Your task to perform on an android device: Search for the best rated coffee table on Target. Image 0: 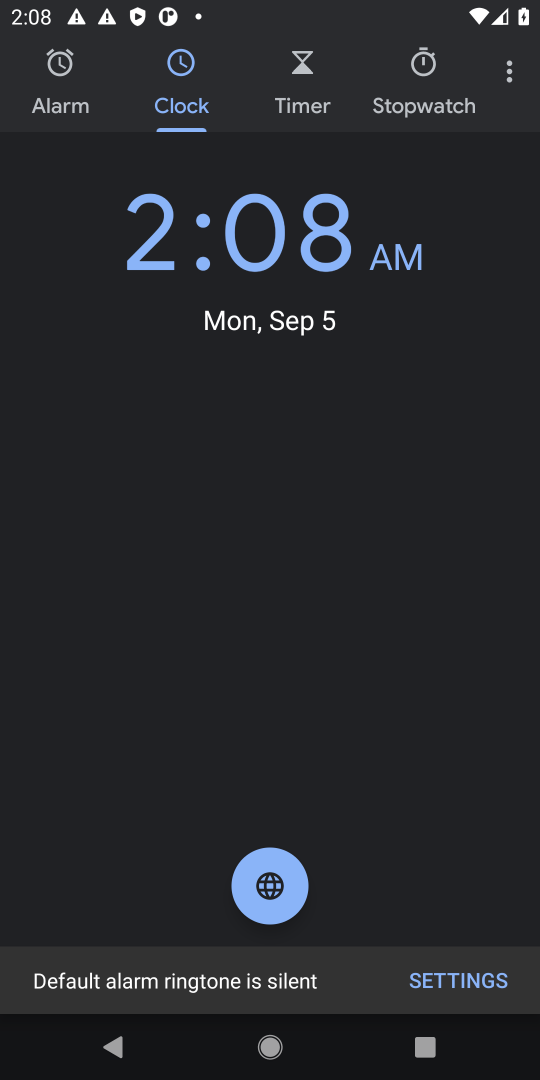
Step 0: press home button
Your task to perform on an android device: Search for the best rated coffee table on Target. Image 1: 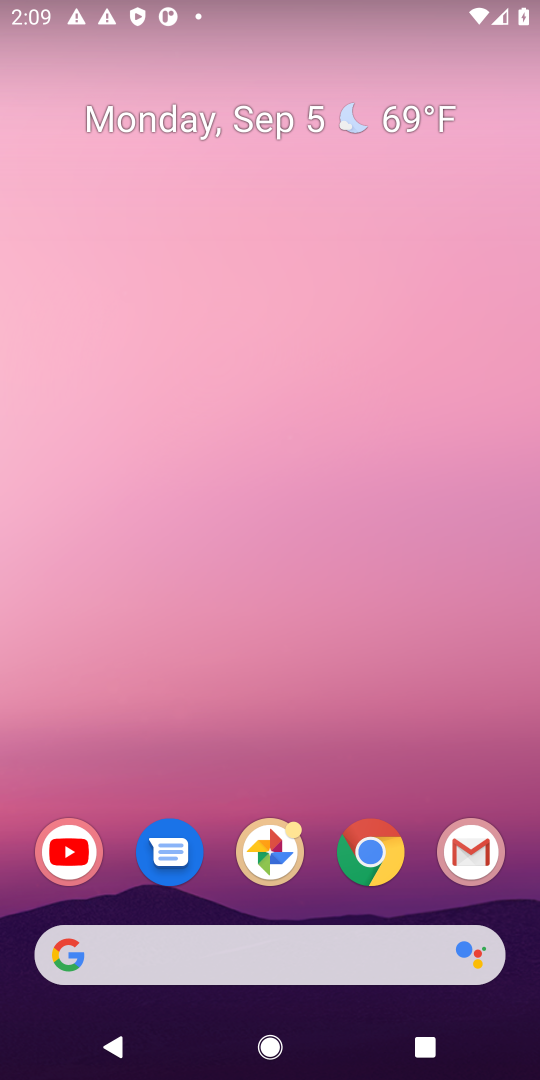
Step 1: click (373, 852)
Your task to perform on an android device: Search for the best rated coffee table on Target. Image 2: 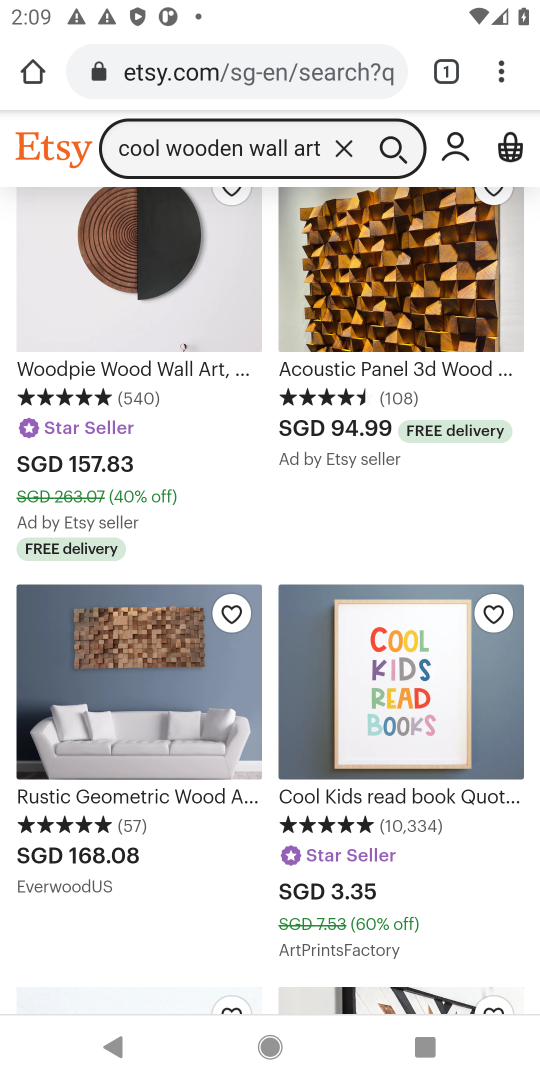
Step 2: click (257, 53)
Your task to perform on an android device: Search for the best rated coffee table on Target. Image 3: 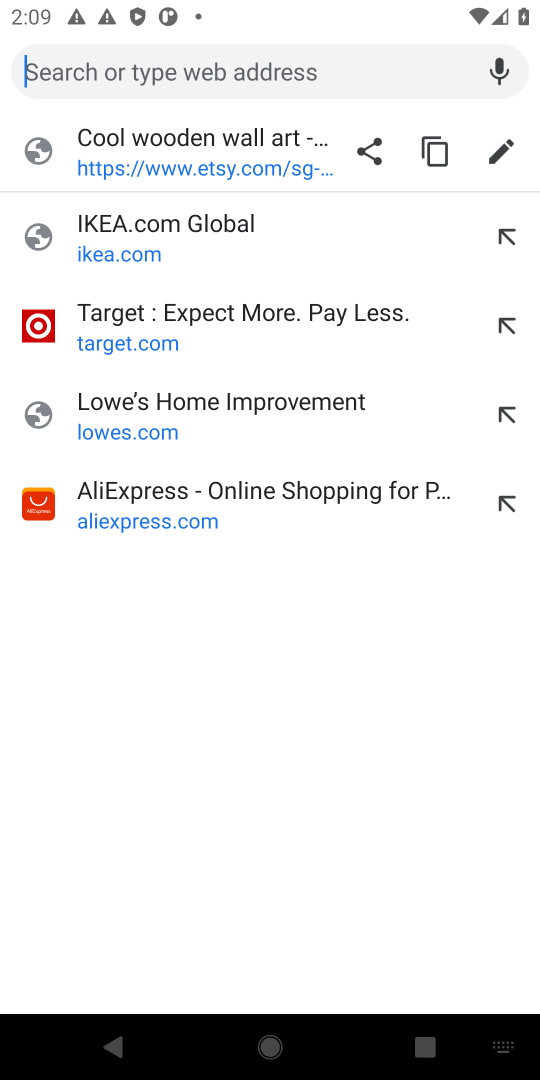
Step 3: click (108, 309)
Your task to perform on an android device: Search for the best rated coffee table on Target. Image 4: 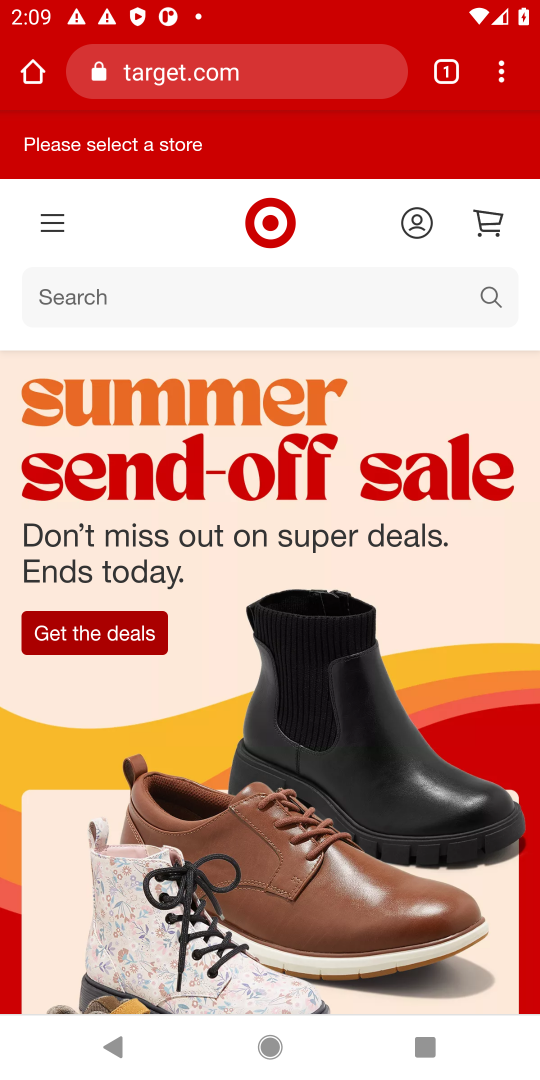
Step 4: click (101, 303)
Your task to perform on an android device: Search for the best rated coffee table on Target. Image 5: 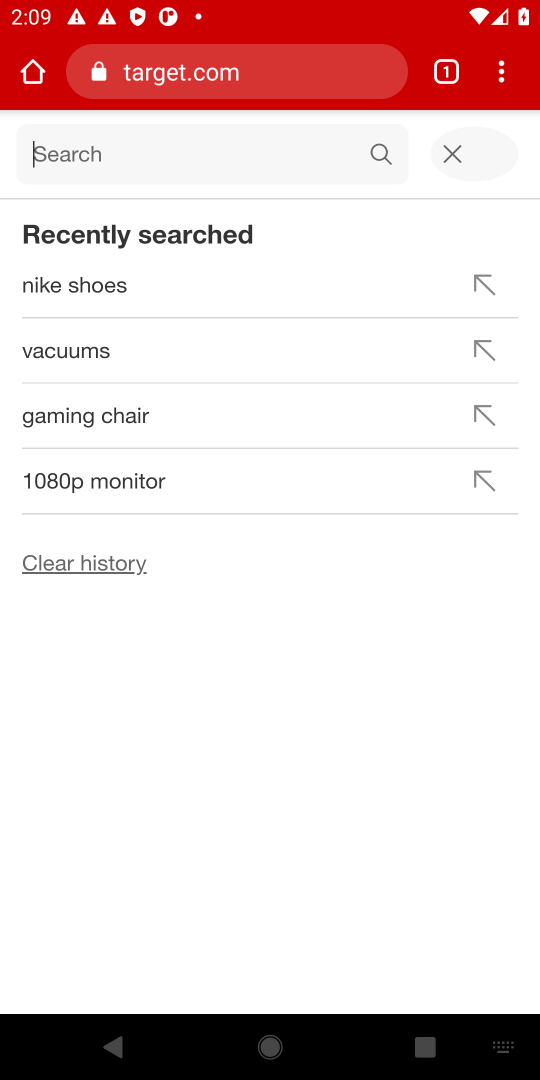
Step 5: type "coffee table"
Your task to perform on an android device: Search for the best rated coffee table on Target. Image 6: 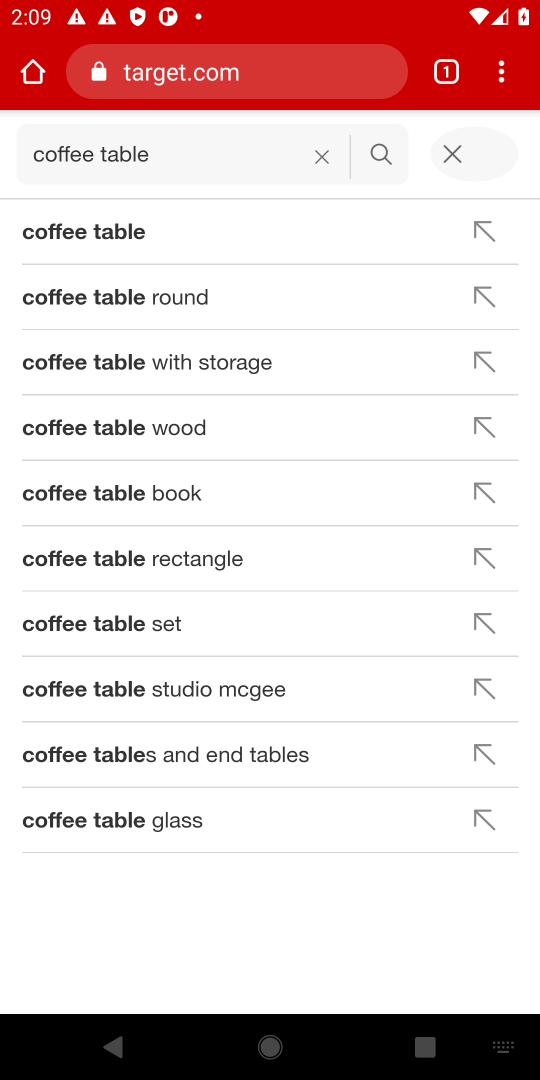
Step 6: click (138, 240)
Your task to perform on an android device: Search for the best rated coffee table on Target. Image 7: 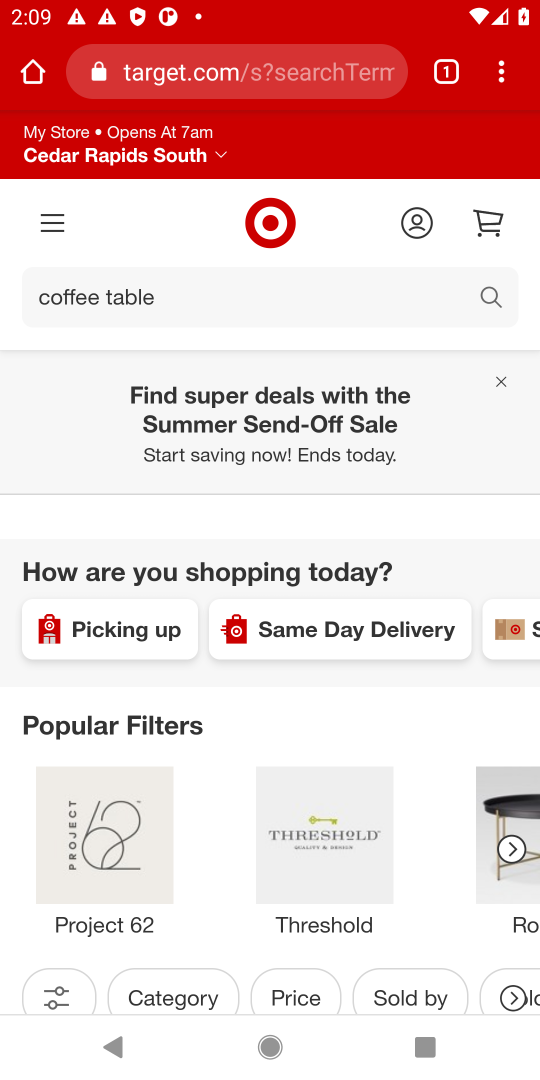
Step 7: click (492, 290)
Your task to perform on an android device: Search for the best rated coffee table on Target. Image 8: 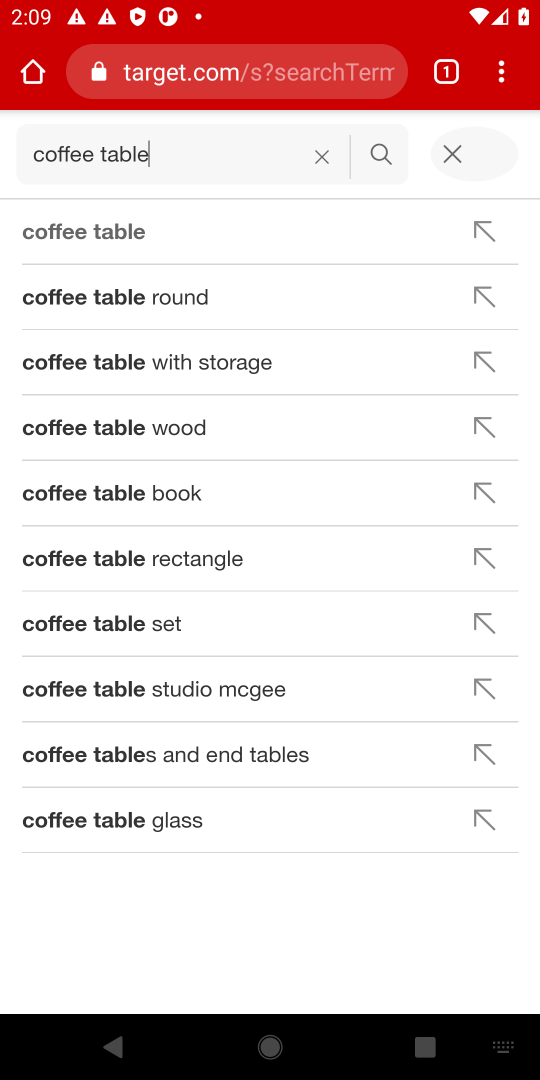
Step 8: click (122, 224)
Your task to perform on an android device: Search for the best rated coffee table on Target. Image 9: 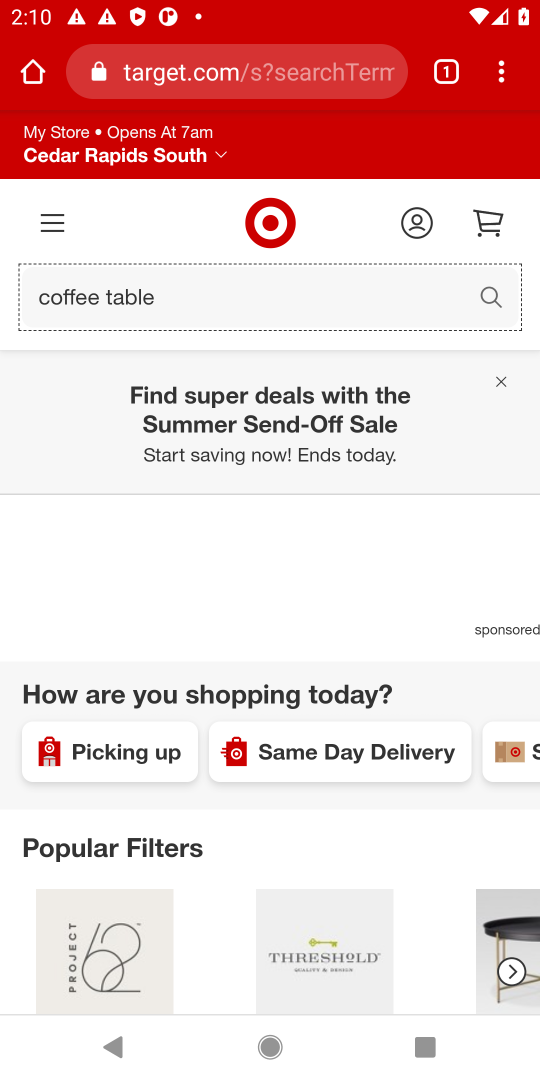
Step 9: task complete